Your task to perform on an android device: When is my next appointment? Image 0: 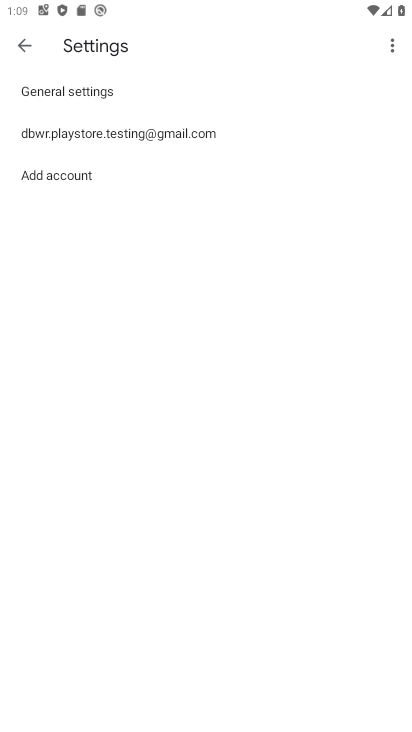
Step 0: press home button
Your task to perform on an android device: When is my next appointment? Image 1: 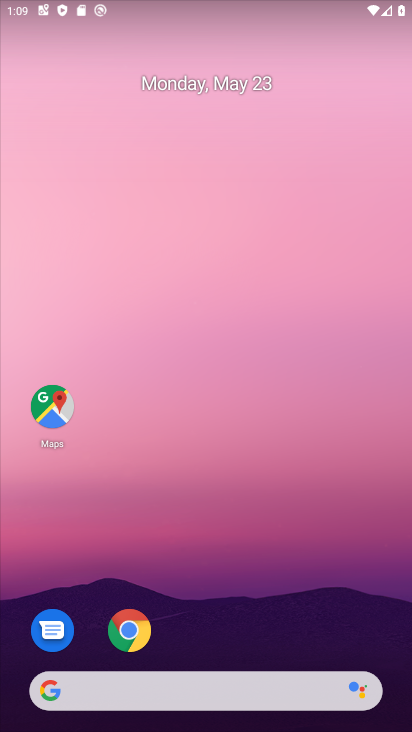
Step 1: drag from (365, 521) to (382, 250)
Your task to perform on an android device: When is my next appointment? Image 2: 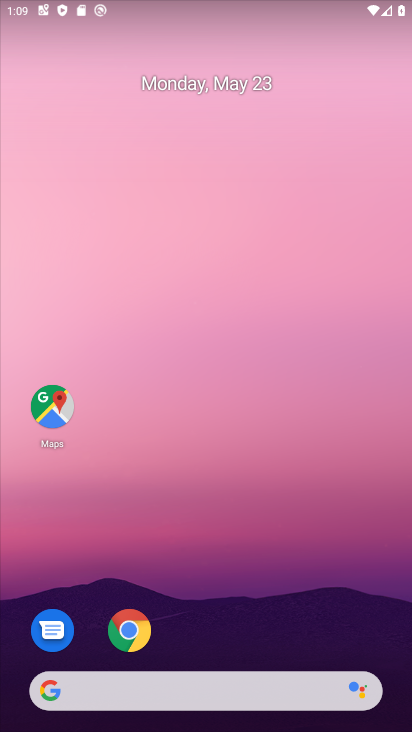
Step 2: drag from (325, 616) to (320, 198)
Your task to perform on an android device: When is my next appointment? Image 3: 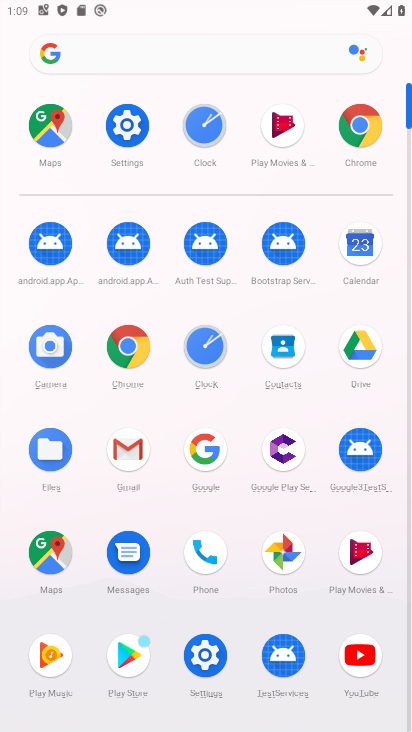
Step 3: click (370, 253)
Your task to perform on an android device: When is my next appointment? Image 4: 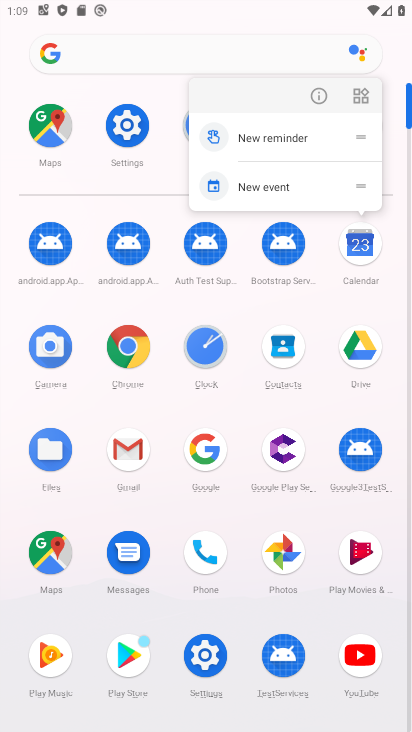
Step 4: click (350, 254)
Your task to perform on an android device: When is my next appointment? Image 5: 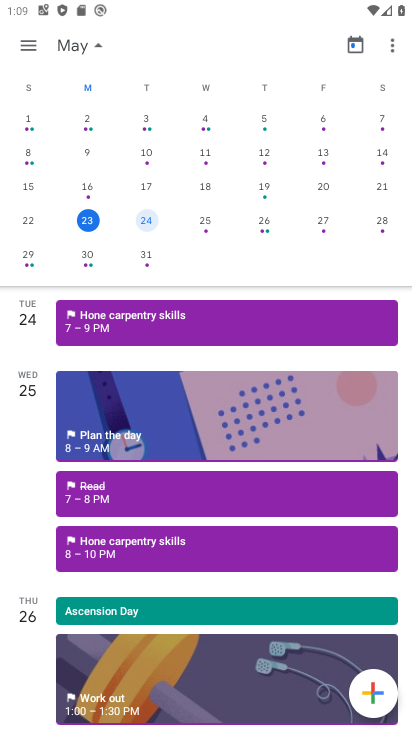
Step 5: drag from (123, 553) to (143, 385)
Your task to perform on an android device: When is my next appointment? Image 6: 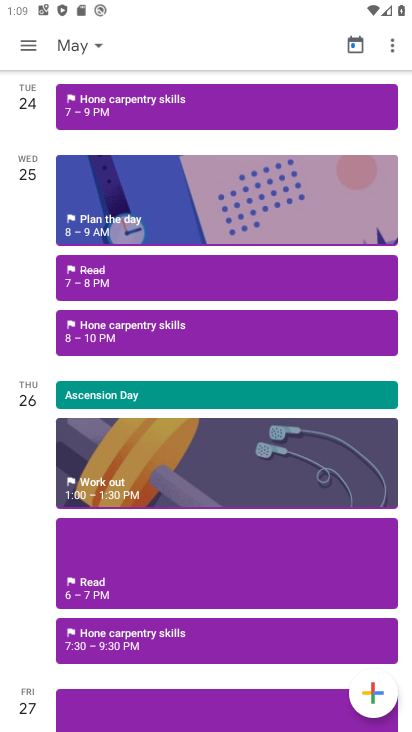
Step 6: drag from (127, 614) to (130, 288)
Your task to perform on an android device: When is my next appointment? Image 7: 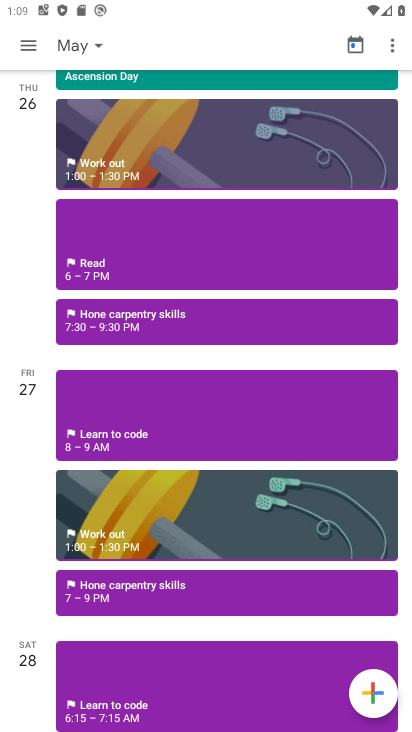
Step 7: drag from (168, 567) to (182, 255)
Your task to perform on an android device: When is my next appointment? Image 8: 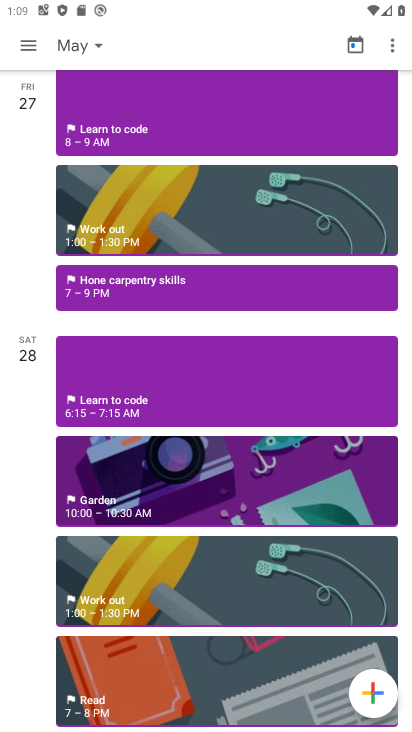
Step 8: drag from (139, 492) to (155, 247)
Your task to perform on an android device: When is my next appointment? Image 9: 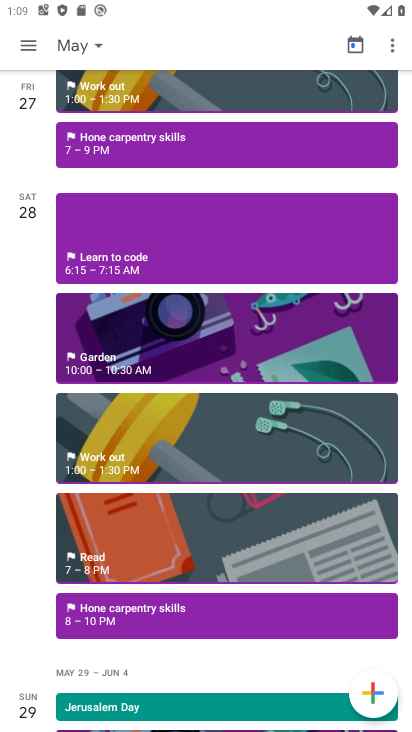
Step 9: drag from (159, 536) to (196, 217)
Your task to perform on an android device: When is my next appointment? Image 10: 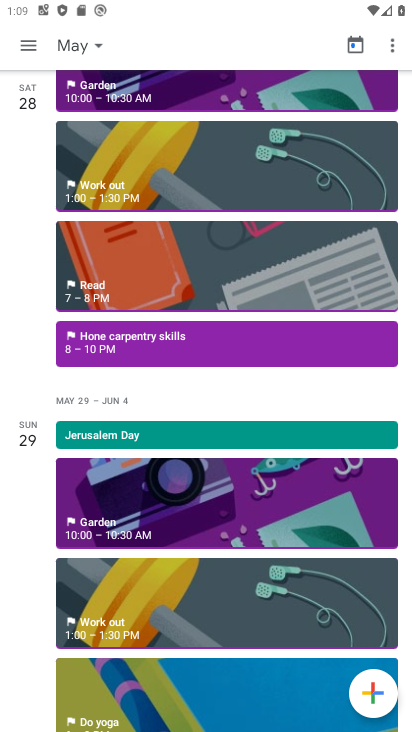
Step 10: drag from (217, 542) to (218, 287)
Your task to perform on an android device: When is my next appointment? Image 11: 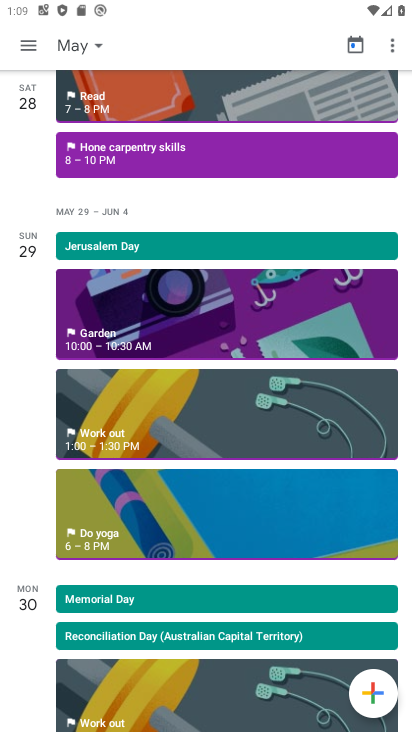
Step 11: drag from (204, 630) to (206, 313)
Your task to perform on an android device: When is my next appointment? Image 12: 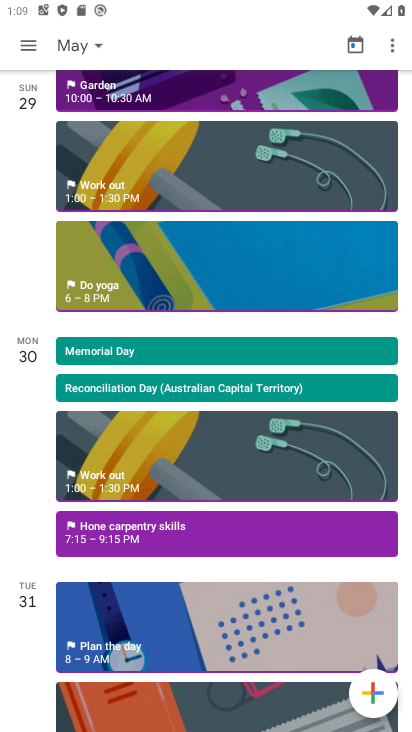
Step 12: drag from (215, 596) to (230, 277)
Your task to perform on an android device: When is my next appointment? Image 13: 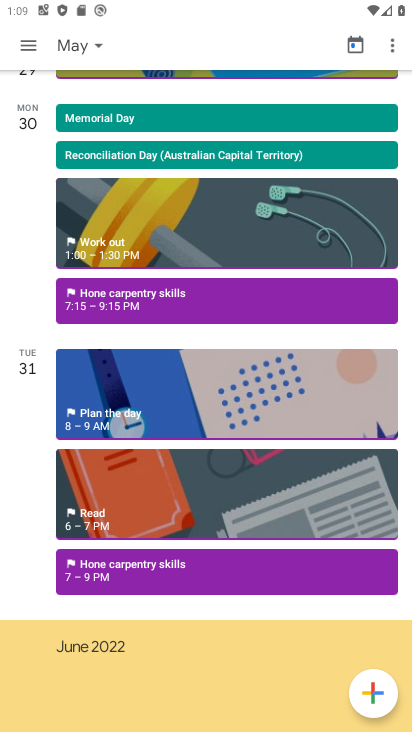
Step 13: drag from (179, 562) to (174, 230)
Your task to perform on an android device: When is my next appointment? Image 14: 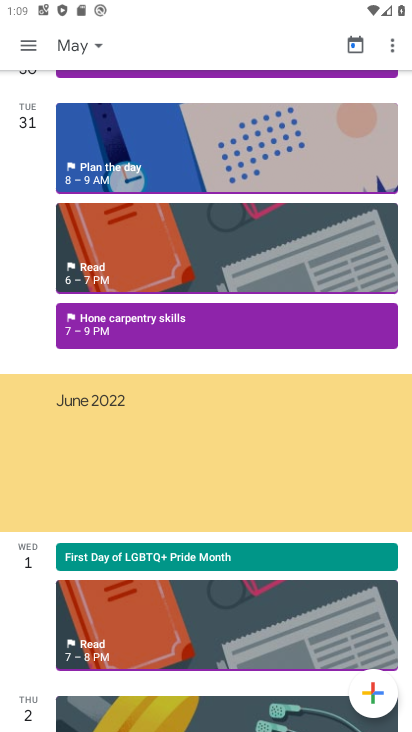
Step 14: drag from (187, 535) to (191, 226)
Your task to perform on an android device: When is my next appointment? Image 15: 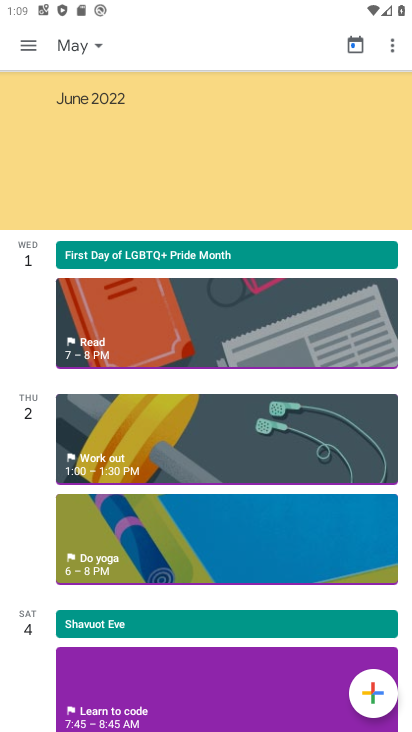
Step 15: drag from (184, 529) to (192, 217)
Your task to perform on an android device: When is my next appointment? Image 16: 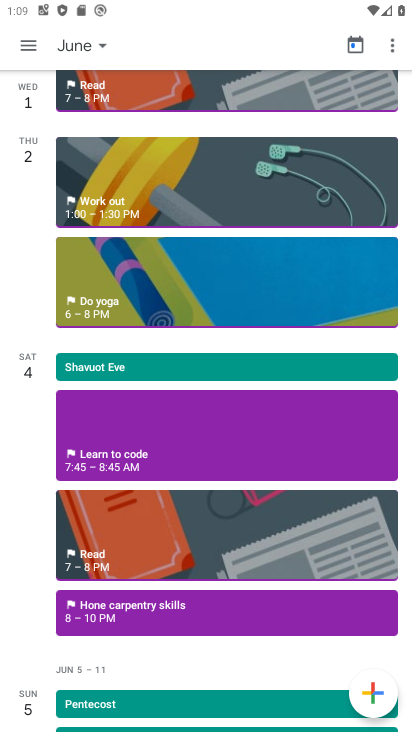
Step 16: drag from (179, 442) to (201, 184)
Your task to perform on an android device: When is my next appointment? Image 17: 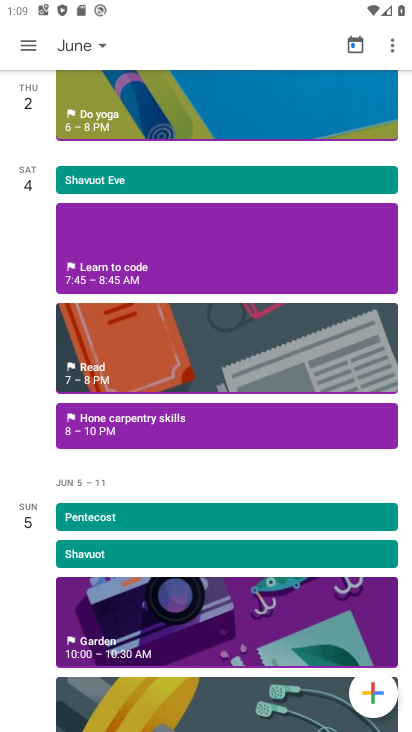
Step 17: drag from (185, 455) to (202, 225)
Your task to perform on an android device: When is my next appointment? Image 18: 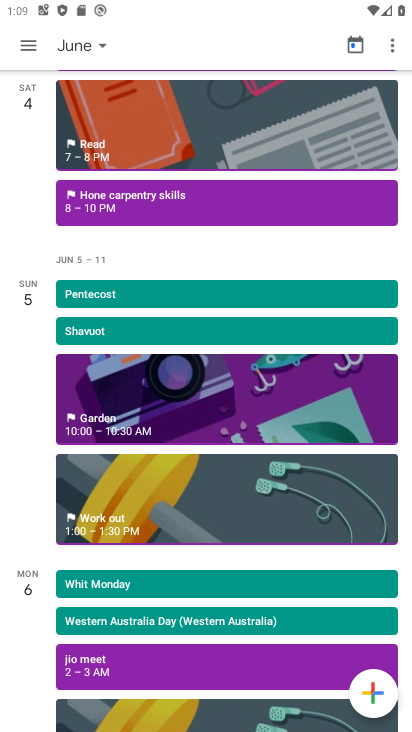
Step 18: drag from (126, 438) to (169, 191)
Your task to perform on an android device: When is my next appointment? Image 19: 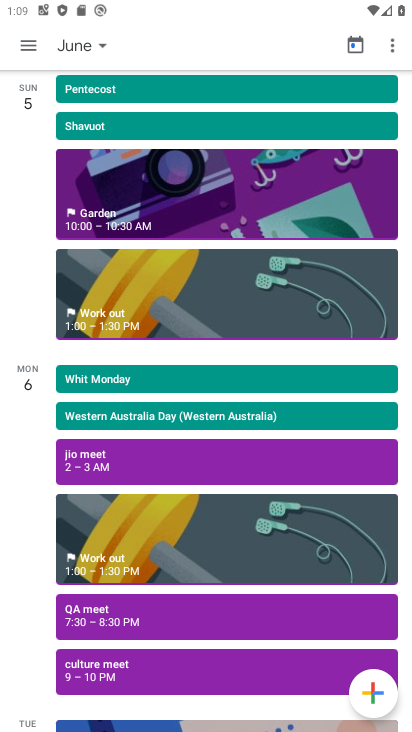
Step 19: drag from (176, 418) to (178, 215)
Your task to perform on an android device: When is my next appointment? Image 20: 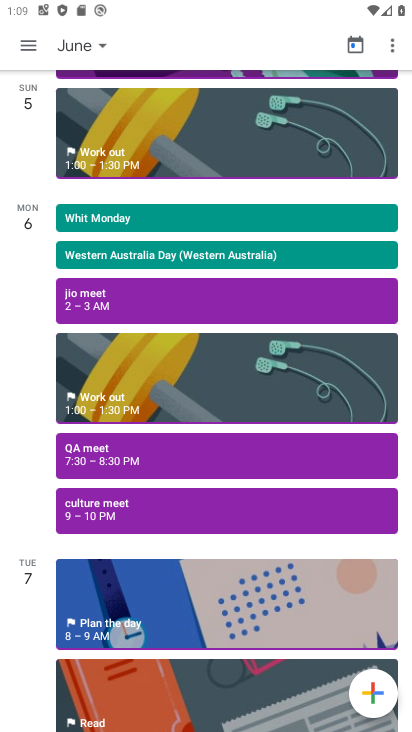
Step 20: click (121, 466)
Your task to perform on an android device: When is my next appointment? Image 21: 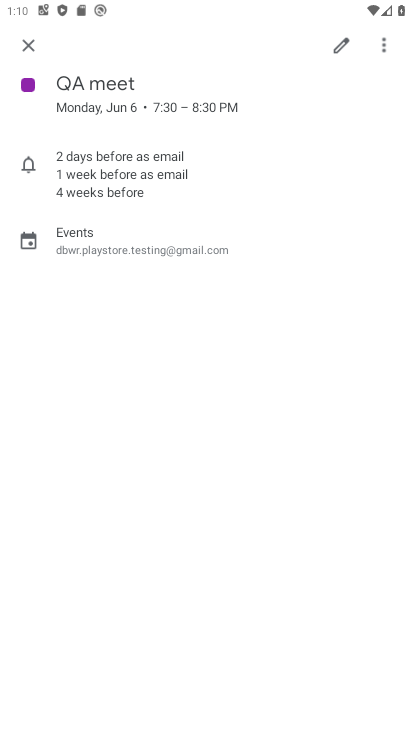
Step 21: task complete